Your task to perform on an android device: Check the weather Image 0: 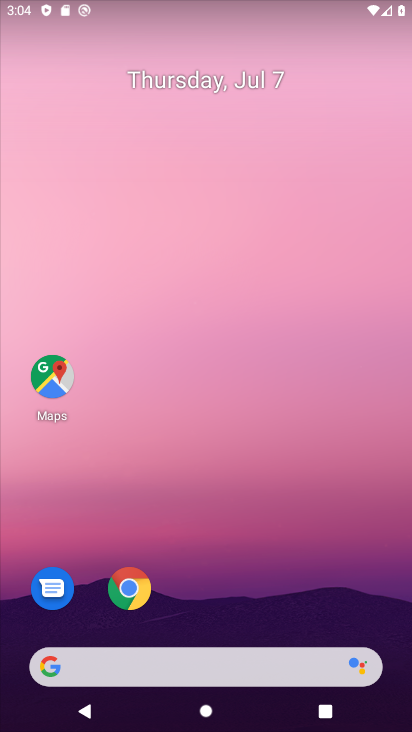
Step 0: click (235, 692)
Your task to perform on an android device: Check the weather Image 1: 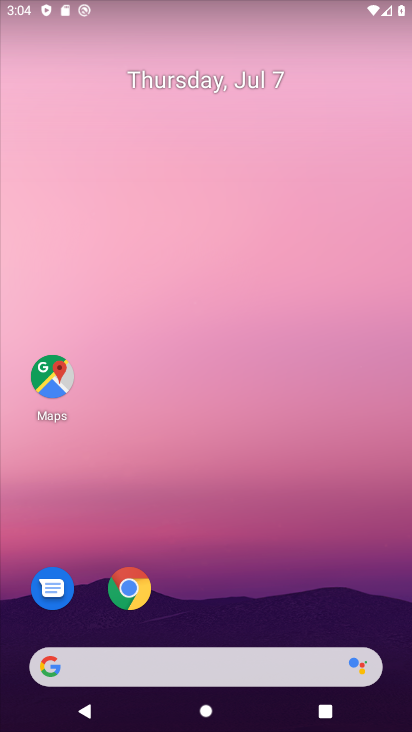
Step 1: drag from (16, 151) to (393, 546)
Your task to perform on an android device: Check the weather Image 2: 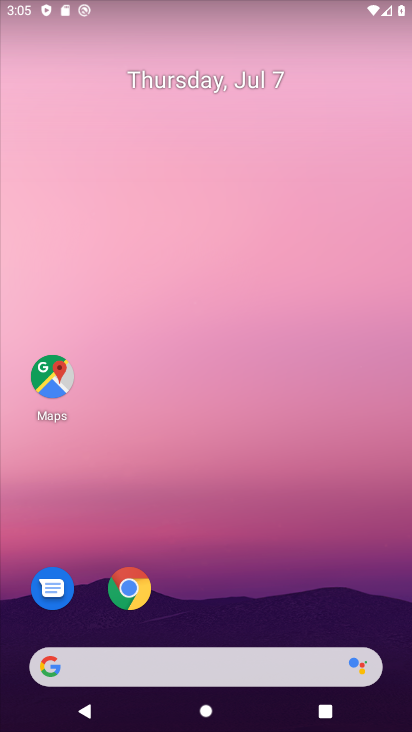
Step 2: click (179, 113)
Your task to perform on an android device: Check the weather Image 3: 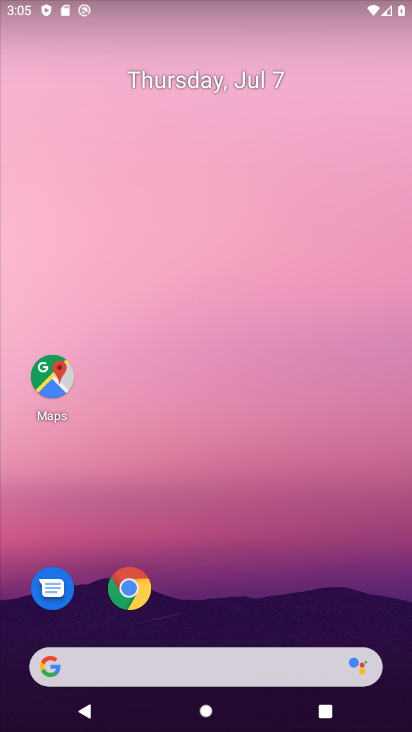
Step 3: drag from (14, 143) to (354, 632)
Your task to perform on an android device: Check the weather Image 4: 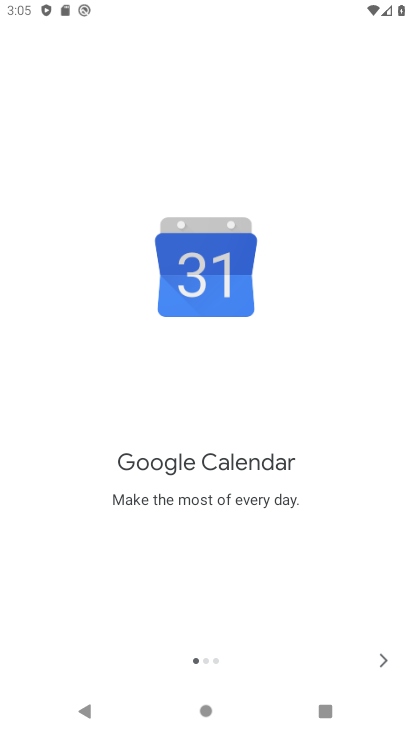
Step 4: press back button
Your task to perform on an android device: Check the weather Image 5: 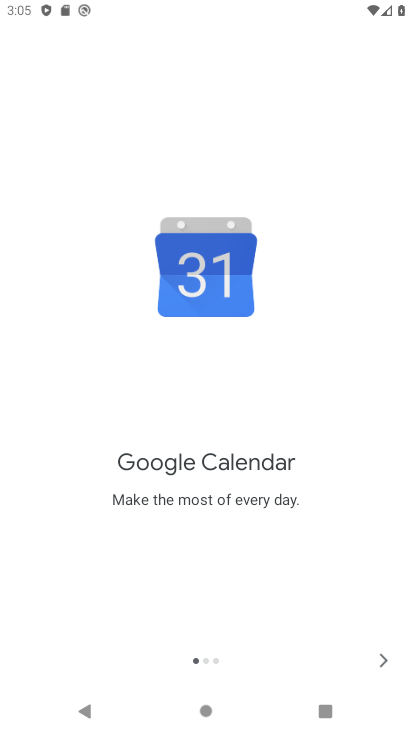
Step 5: press back button
Your task to perform on an android device: Check the weather Image 6: 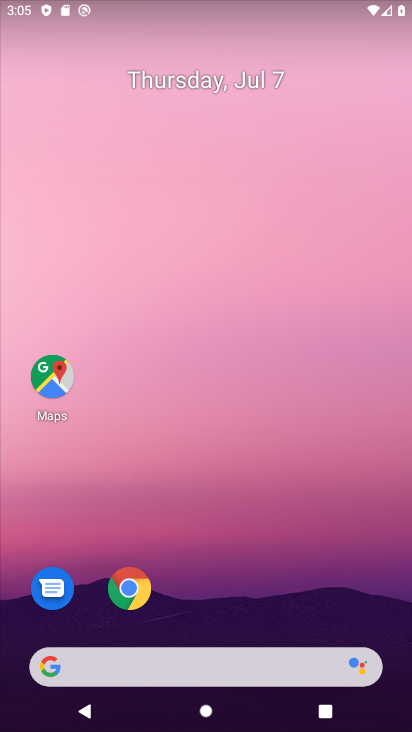
Step 6: drag from (155, 209) to (410, 672)
Your task to perform on an android device: Check the weather Image 7: 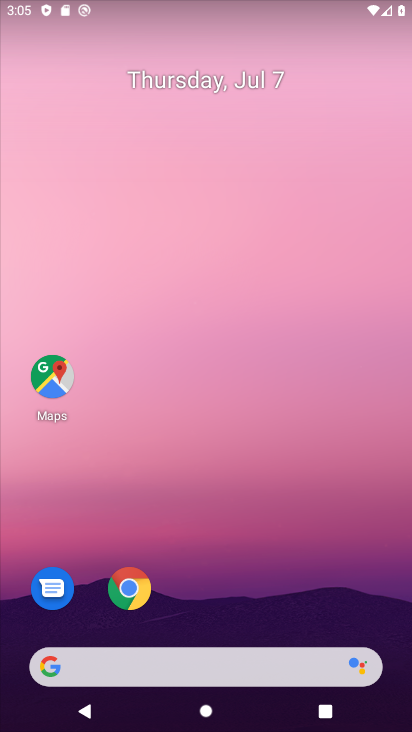
Step 7: drag from (40, 125) to (341, 545)
Your task to perform on an android device: Check the weather Image 8: 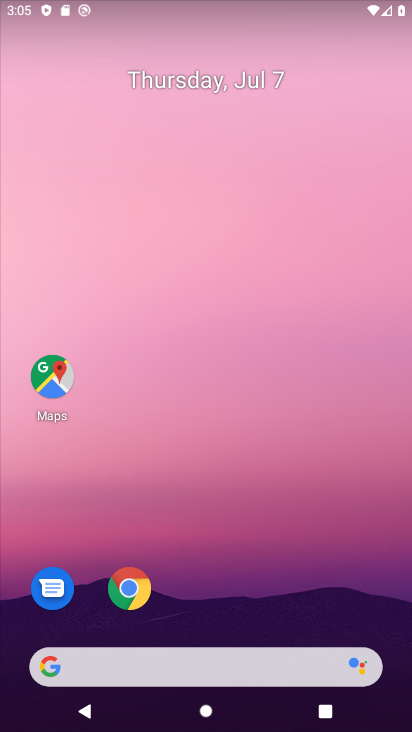
Step 8: drag from (34, 77) to (358, 597)
Your task to perform on an android device: Check the weather Image 9: 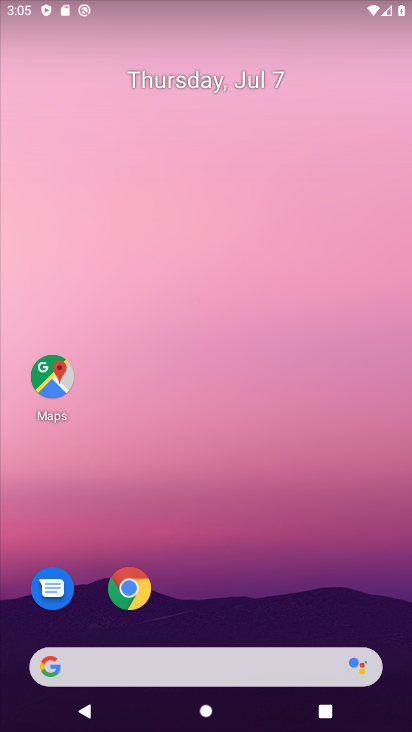
Step 9: drag from (87, 155) to (403, 319)
Your task to perform on an android device: Check the weather Image 10: 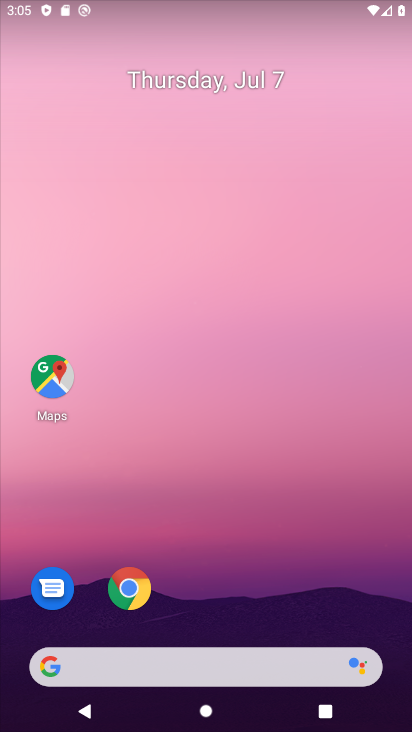
Step 10: drag from (10, 103) to (403, 337)
Your task to perform on an android device: Check the weather Image 11: 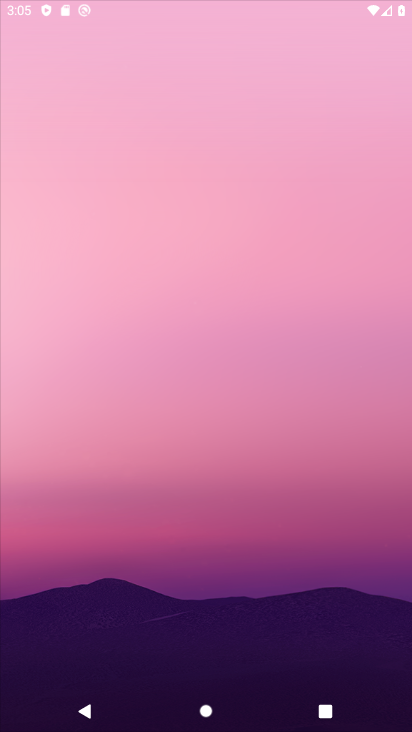
Step 11: click (218, 75)
Your task to perform on an android device: Check the weather Image 12: 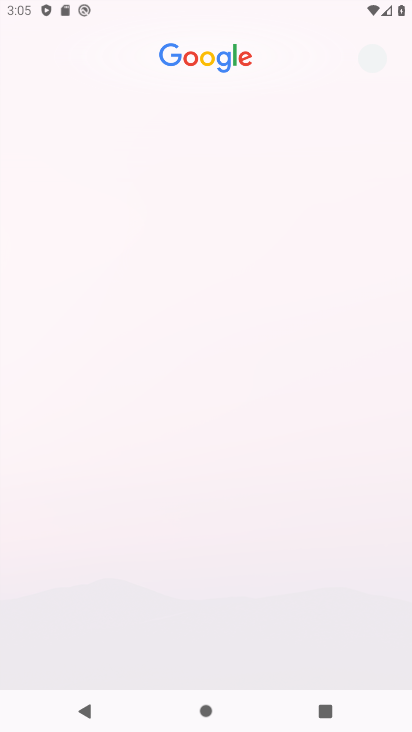
Step 12: task complete